Your task to perform on an android device: Open Google Maps Image 0: 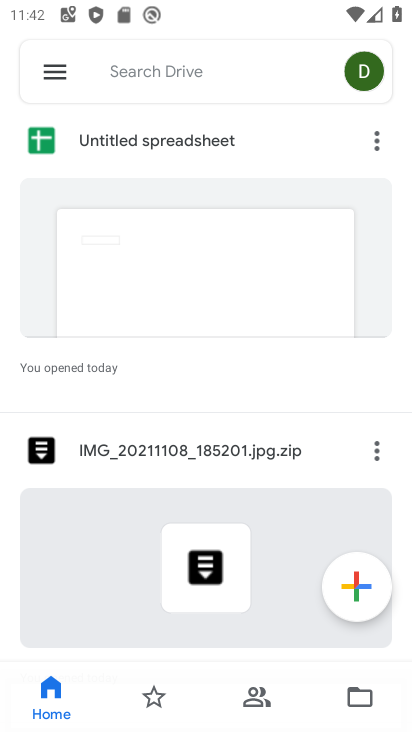
Step 0: press home button
Your task to perform on an android device: Open Google Maps Image 1: 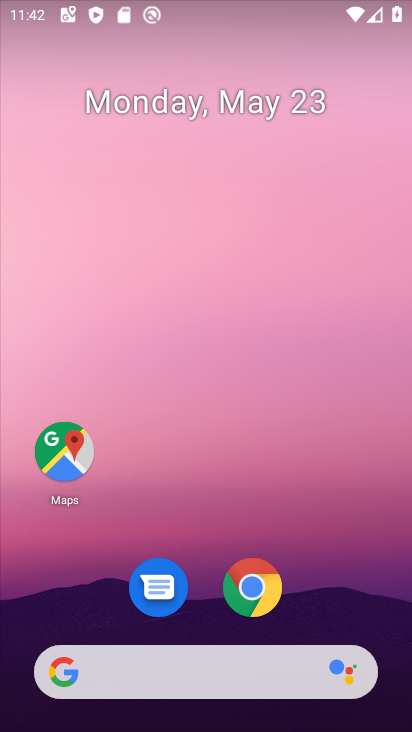
Step 1: click (71, 463)
Your task to perform on an android device: Open Google Maps Image 2: 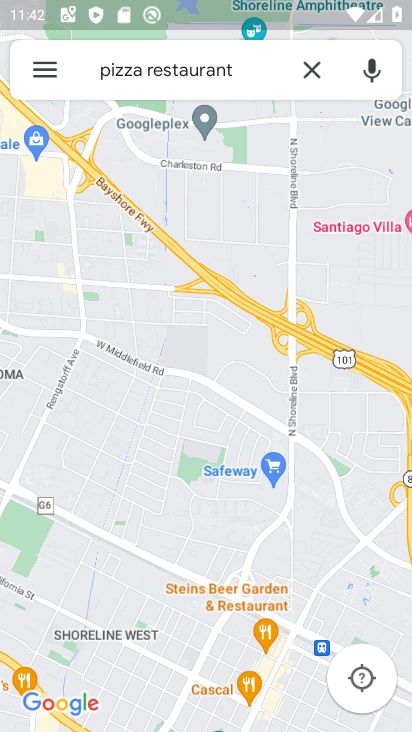
Step 2: task complete